Your task to perform on an android device: Open the calendar app, open the side menu, and click the "Day" option Image 0: 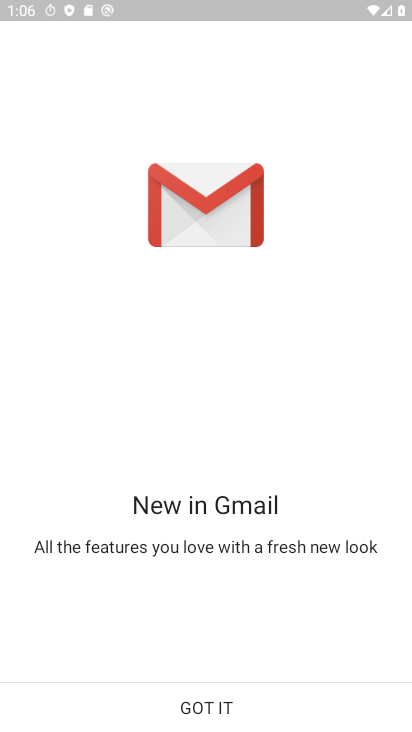
Step 0: press home button
Your task to perform on an android device: Open the calendar app, open the side menu, and click the "Day" option Image 1: 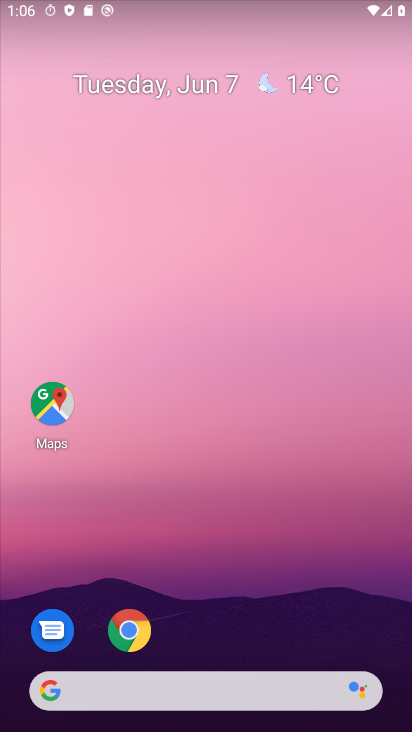
Step 1: drag from (266, 586) to (361, 11)
Your task to perform on an android device: Open the calendar app, open the side menu, and click the "Day" option Image 2: 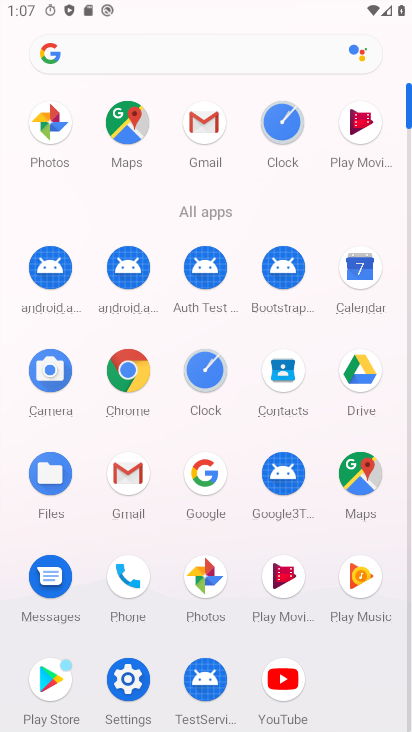
Step 2: click (363, 290)
Your task to perform on an android device: Open the calendar app, open the side menu, and click the "Day" option Image 3: 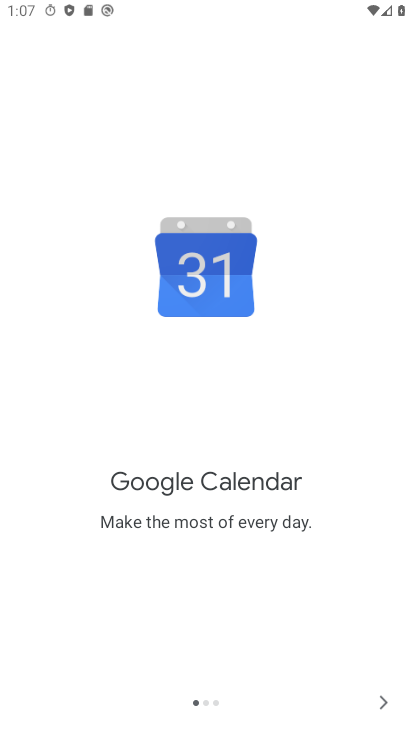
Step 3: click (384, 706)
Your task to perform on an android device: Open the calendar app, open the side menu, and click the "Day" option Image 4: 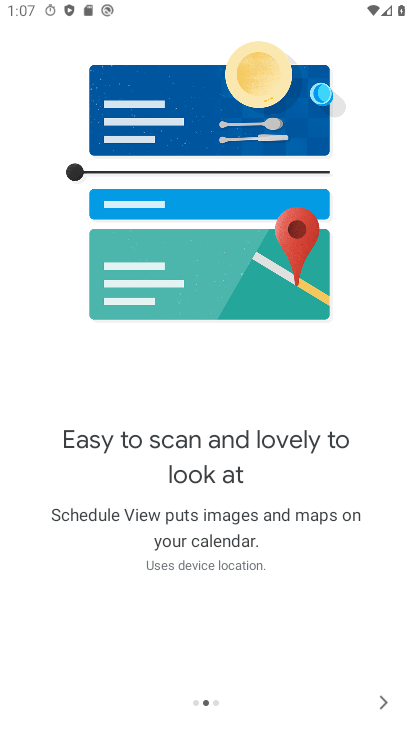
Step 4: click (376, 710)
Your task to perform on an android device: Open the calendar app, open the side menu, and click the "Day" option Image 5: 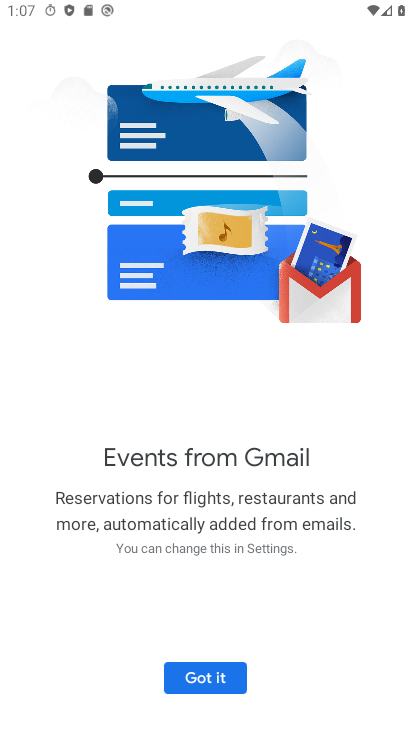
Step 5: click (377, 709)
Your task to perform on an android device: Open the calendar app, open the side menu, and click the "Day" option Image 6: 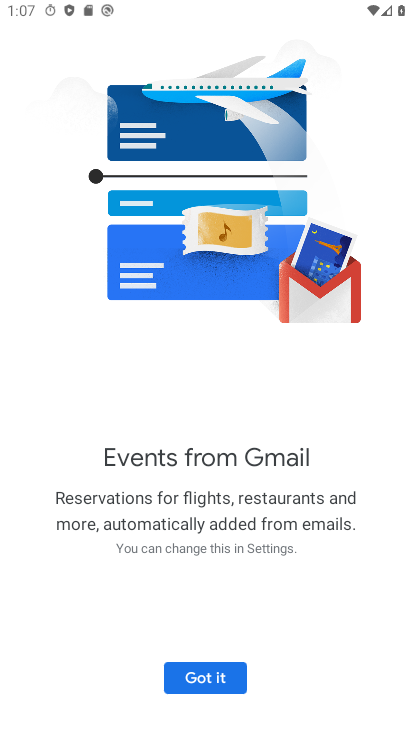
Step 6: click (216, 675)
Your task to perform on an android device: Open the calendar app, open the side menu, and click the "Day" option Image 7: 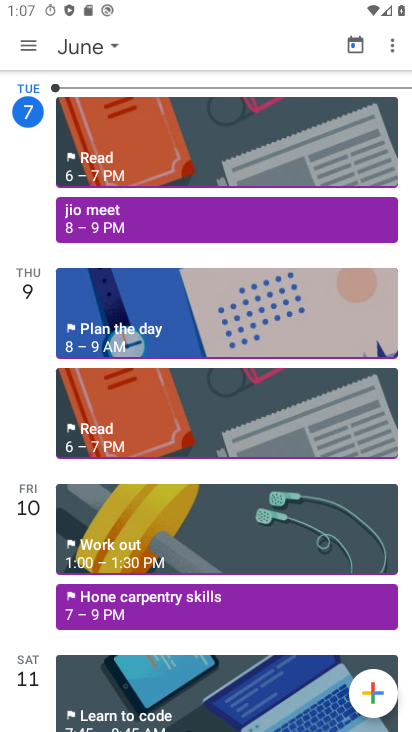
Step 7: click (32, 39)
Your task to perform on an android device: Open the calendar app, open the side menu, and click the "Day" option Image 8: 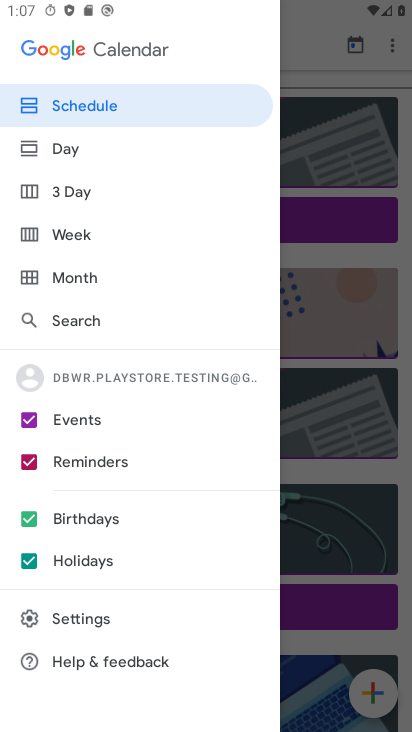
Step 8: click (69, 150)
Your task to perform on an android device: Open the calendar app, open the side menu, and click the "Day" option Image 9: 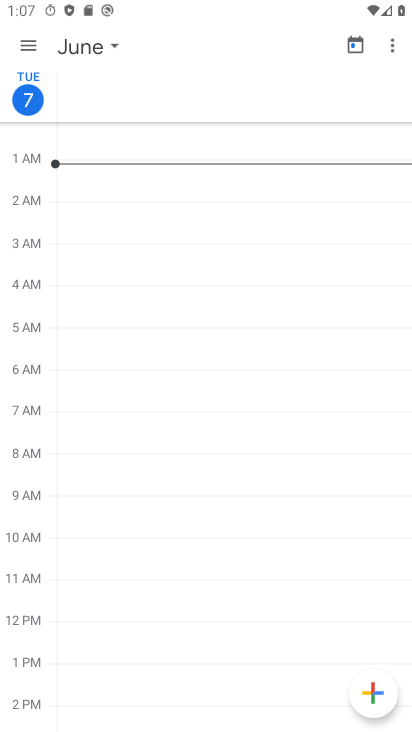
Step 9: task complete